Your task to perform on an android device: check out phone information Image 0: 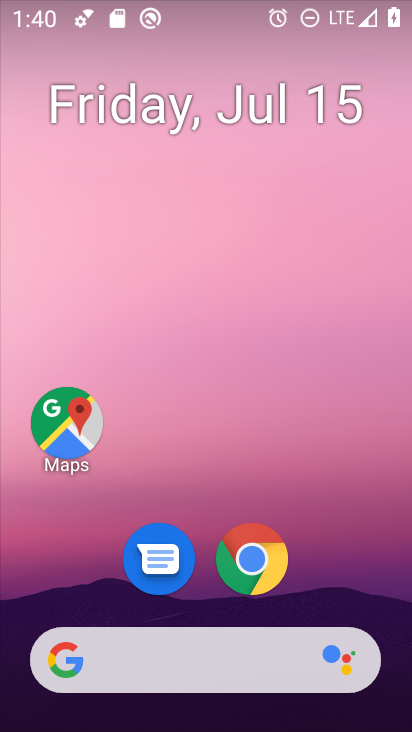
Step 0: drag from (336, 586) to (368, 77)
Your task to perform on an android device: check out phone information Image 1: 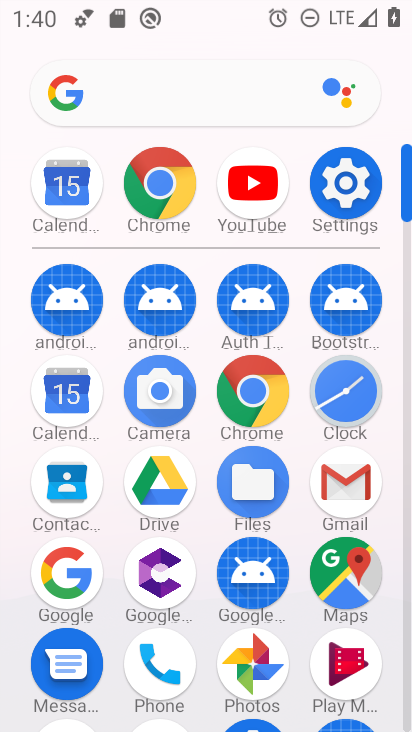
Step 1: click (170, 652)
Your task to perform on an android device: check out phone information Image 2: 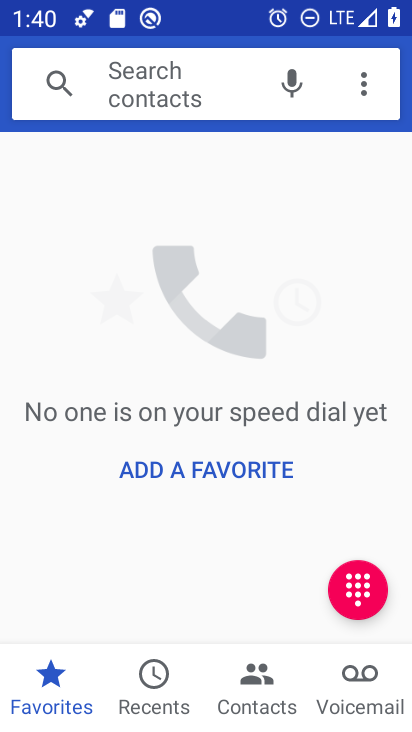
Step 2: task complete